Your task to perform on an android device: turn smart compose on in the gmail app Image 0: 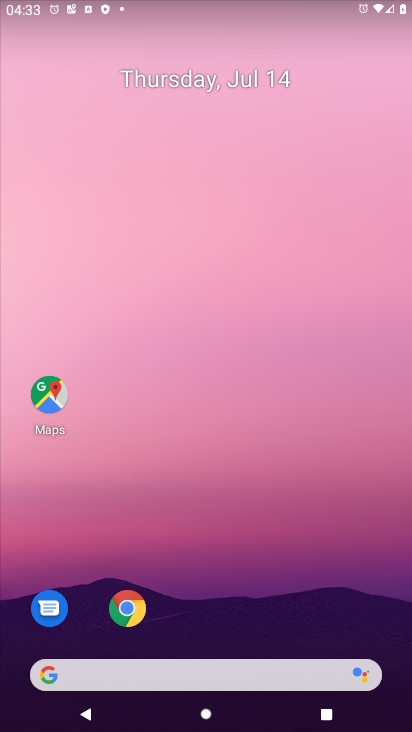
Step 0: drag from (395, 631) to (336, 179)
Your task to perform on an android device: turn smart compose on in the gmail app Image 1: 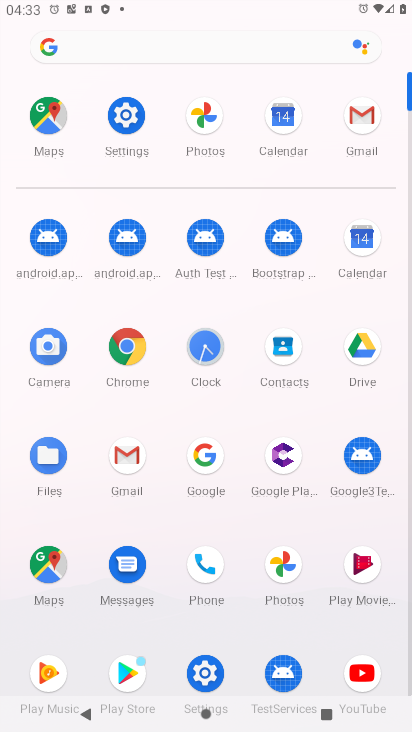
Step 1: click (125, 456)
Your task to perform on an android device: turn smart compose on in the gmail app Image 2: 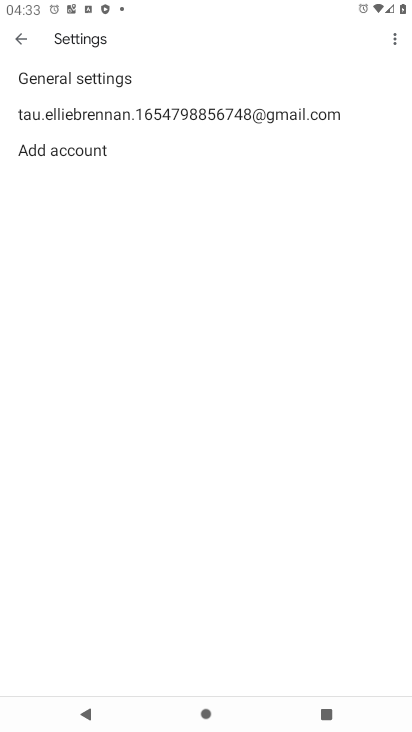
Step 2: click (127, 117)
Your task to perform on an android device: turn smart compose on in the gmail app Image 3: 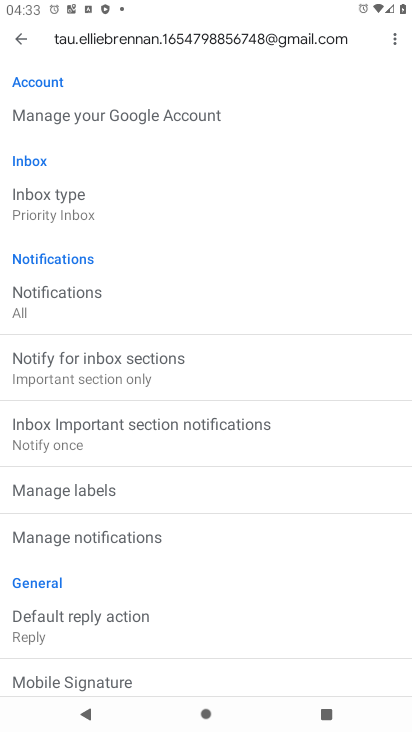
Step 3: task complete